Your task to perform on an android device: change alarm snooze length Image 0: 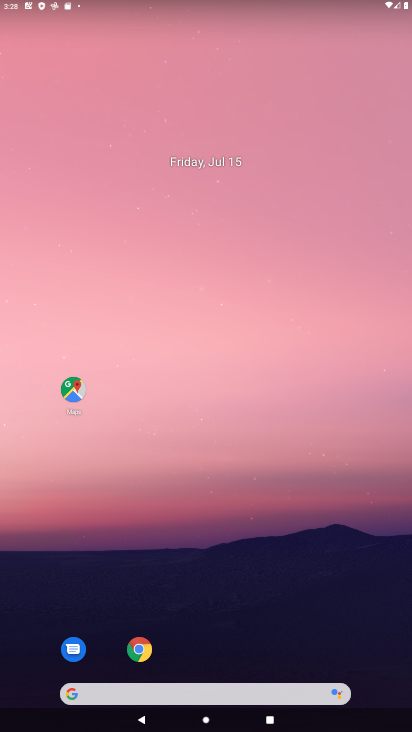
Step 0: drag from (310, 581) to (254, 123)
Your task to perform on an android device: change alarm snooze length Image 1: 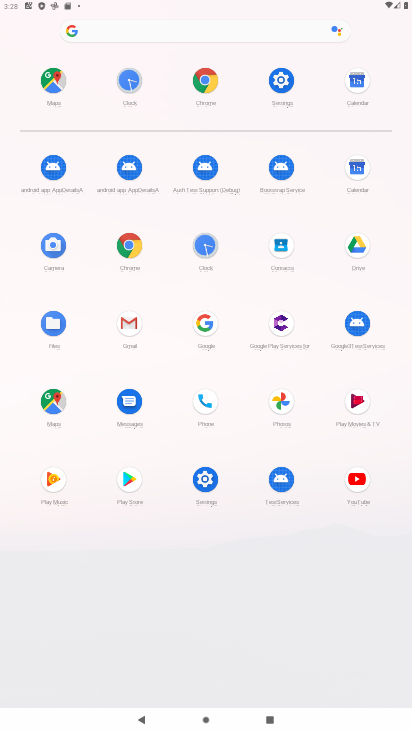
Step 1: click (201, 248)
Your task to perform on an android device: change alarm snooze length Image 2: 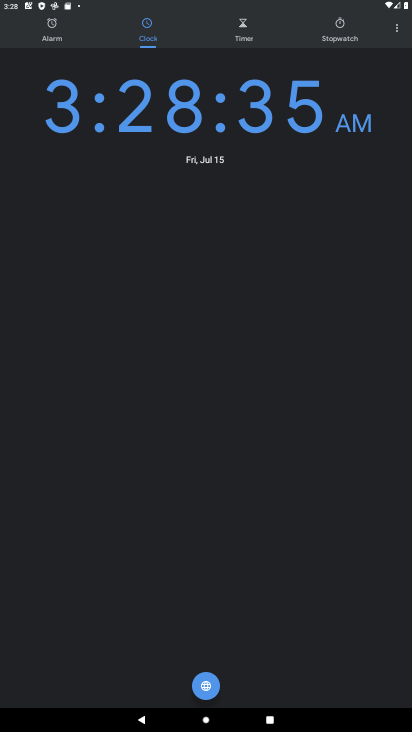
Step 2: click (394, 27)
Your task to perform on an android device: change alarm snooze length Image 3: 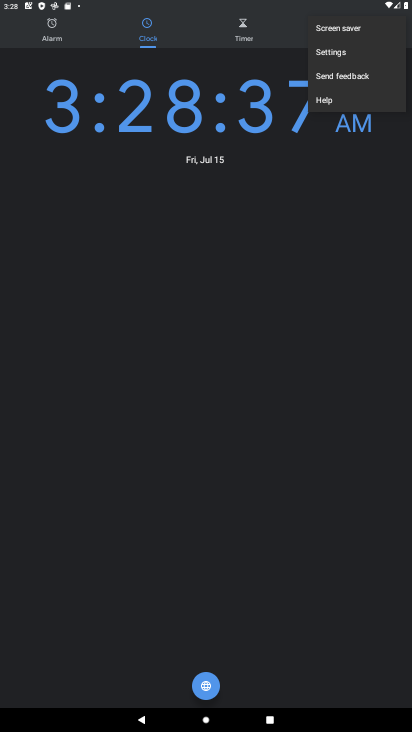
Step 3: click (341, 54)
Your task to perform on an android device: change alarm snooze length Image 4: 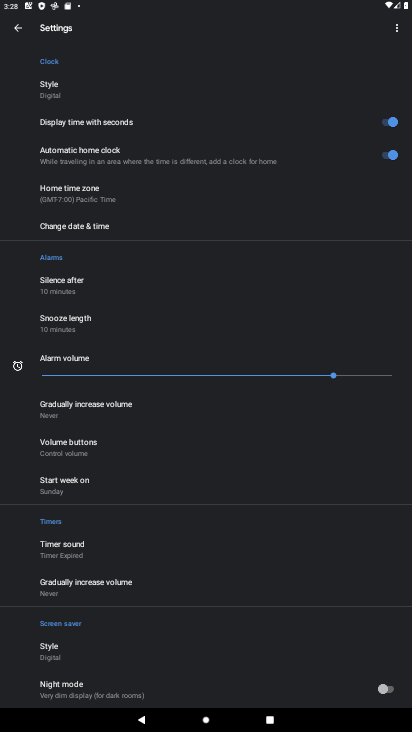
Step 4: click (81, 313)
Your task to perform on an android device: change alarm snooze length Image 5: 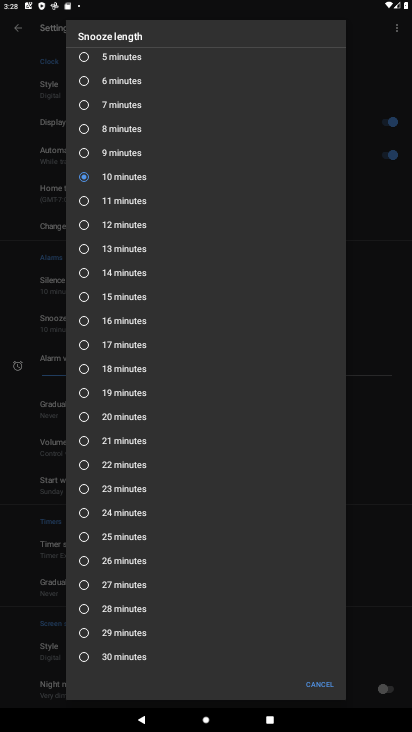
Step 5: click (117, 200)
Your task to perform on an android device: change alarm snooze length Image 6: 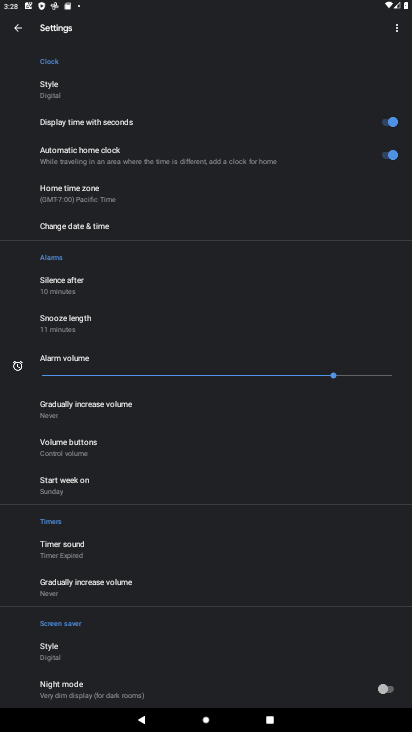
Step 6: task complete